Your task to perform on an android device: check android version Image 0: 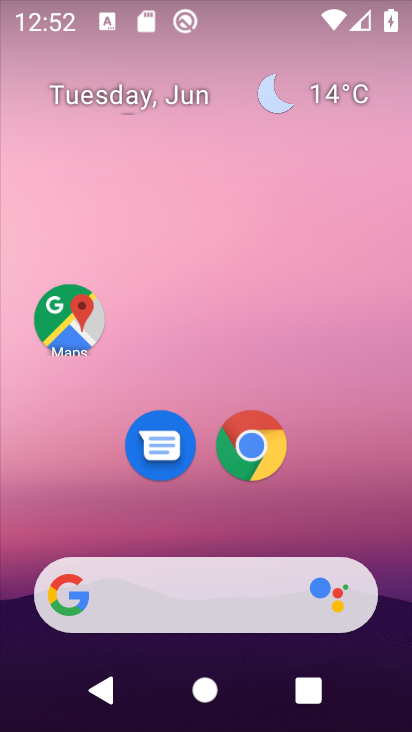
Step 0: click (251, 504)
Your task to perform on an android device: check android version Image 1: 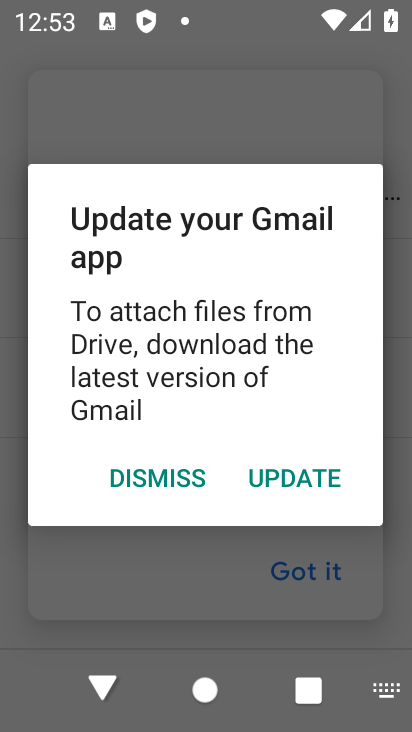
Step 1: press home button
Your task to perform on an android device: check android version Image 2: 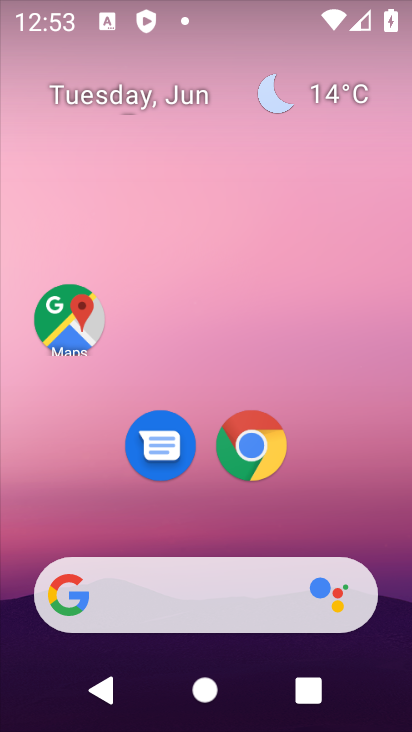
Step 2: drag from (182, 526) to (256, 0)
Your task to perform on an android device: check android version Image 3: 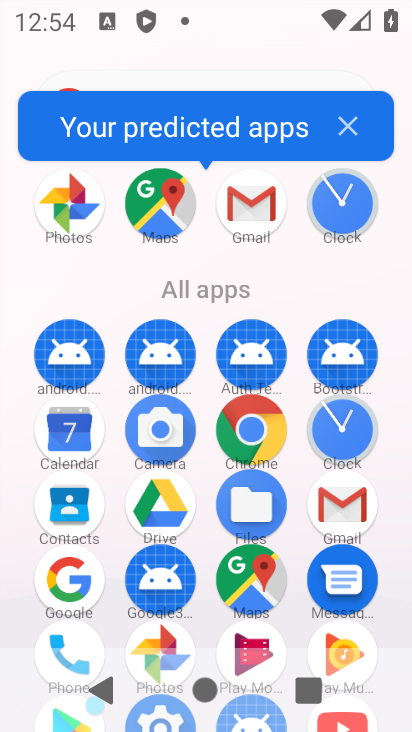
Step 3: drag from (209, 625) to (246, 250)
Your task to perform on an android device: check android version Image 4: 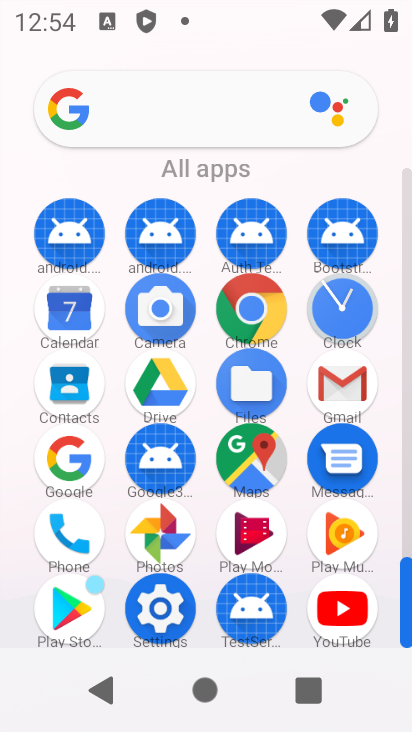
Step 4: click (151, 593)
Your task to perform on an android device: check android version Image 5: 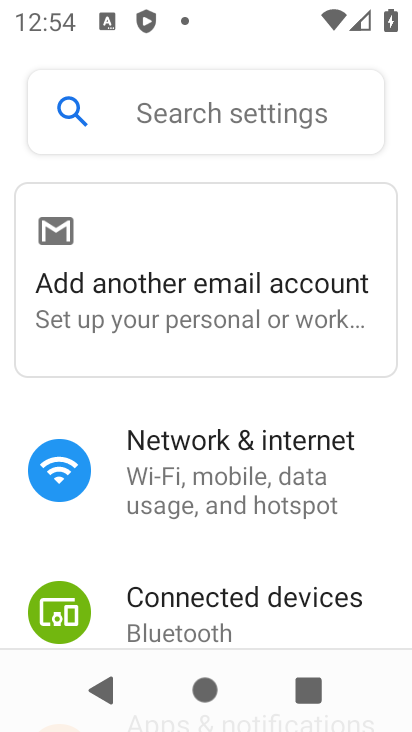
Step 5: task complete